Your task to perform on an android device: turn on the 24-hour format for clock Image 0: 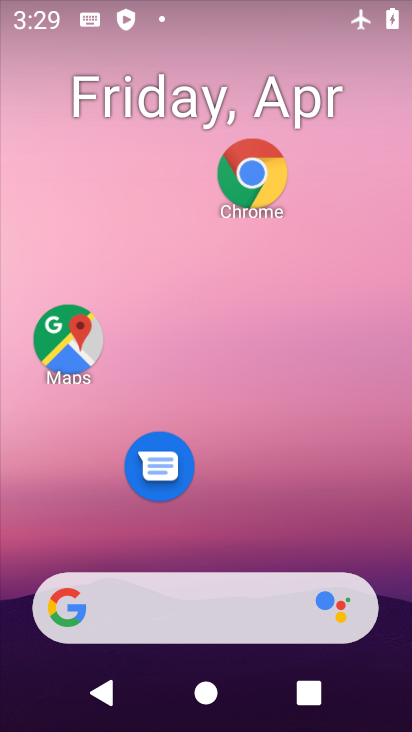
Step 0: drag from (210, 527) to (154, 151)
Your task to perform on an android device: turn on the 24-hour format for clock Image 1: 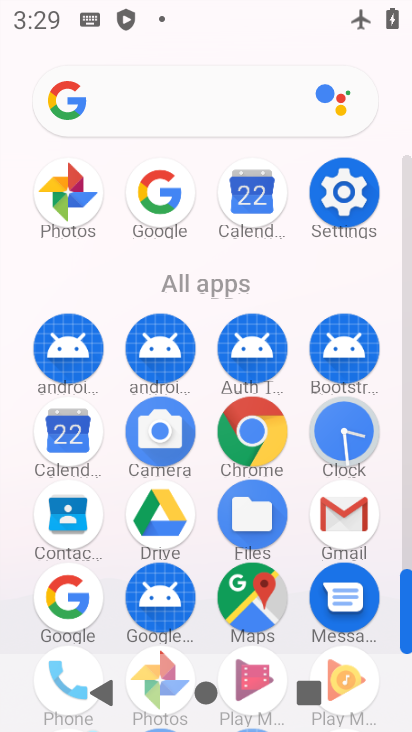
Step 1: click (347, 212)
Your task to perform on an android device: turn on the 24-hour format for clock Image 2: 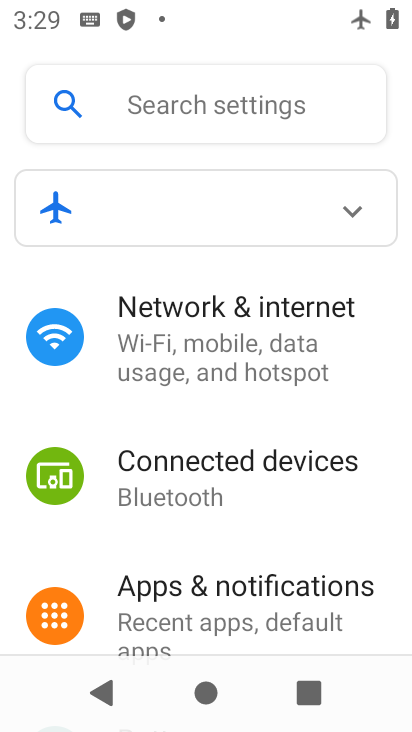
Step 2: drag from (179, 536) to (182, 256)
Your task to perform on an android device: turn on the 24-hour format for clock Image 3: 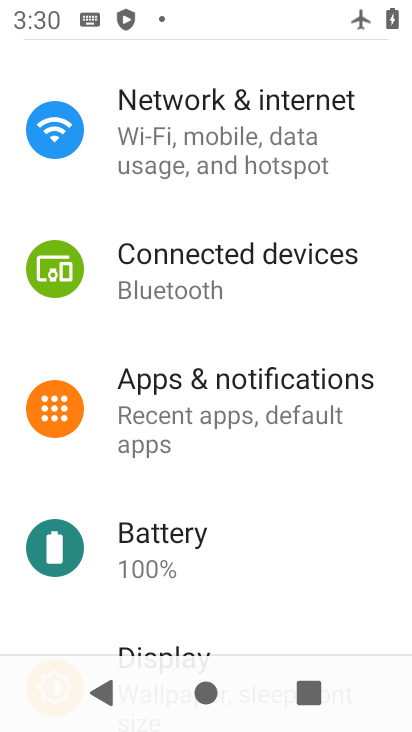
Step 3: press home button
Your task to perform on an android device: turn on the 24-hour format for clock Image 4: 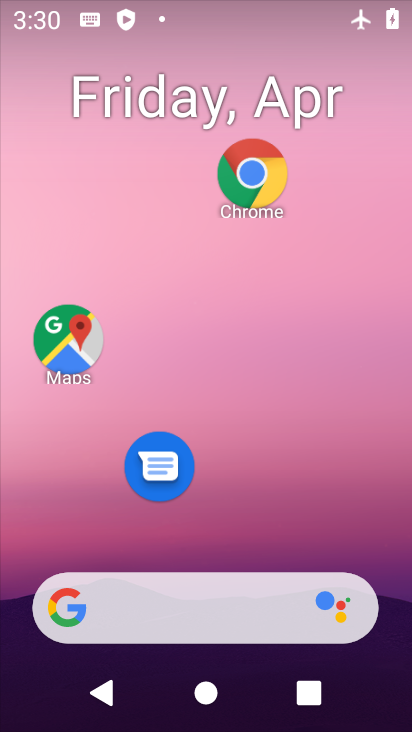
Step 4: drag from (239, 517) to (192, 111)
Your task to perform on an android device: turn on the 24-hour format for clock Image 5: 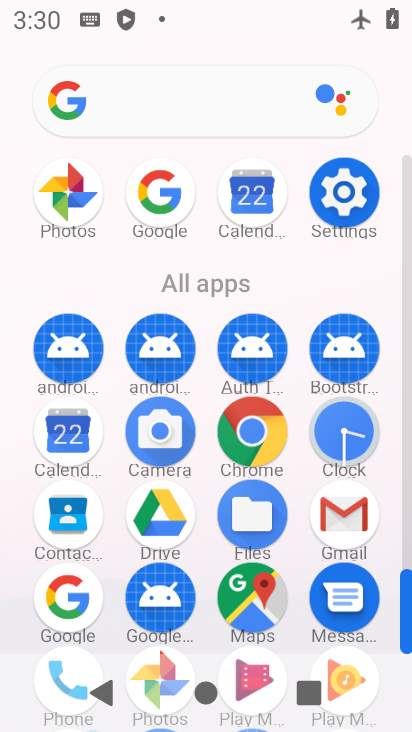
Step 5: click (354, 423)
Your task to perform on an android device: turn on the 24-hour format for clock Image 6: 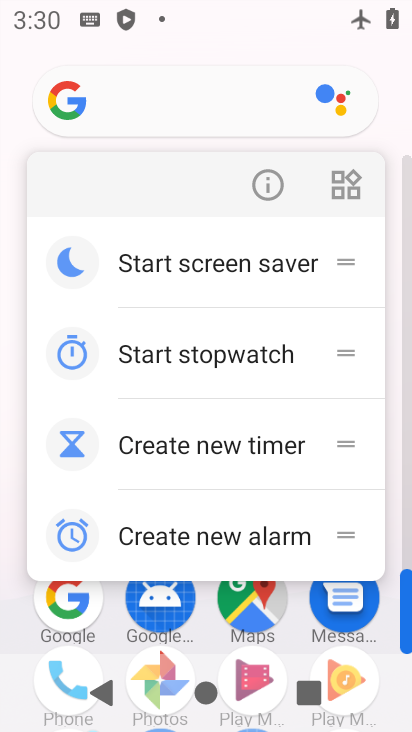
Step 6: click (279, 186)
Your task to perform on an android device: turn on the 24-hour format for clock Image 7: 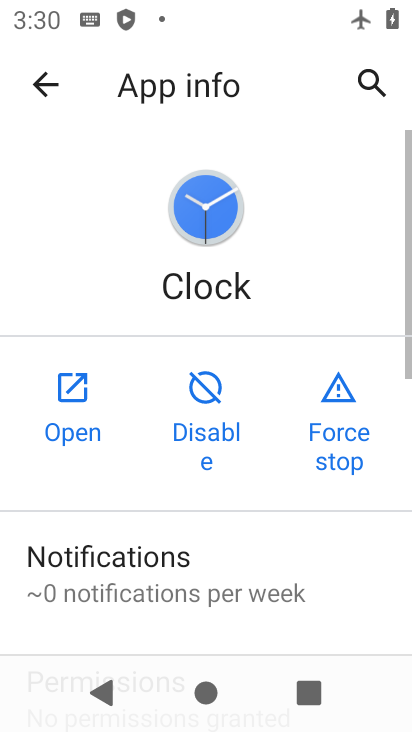
Step 7: click (86, 415)
Your task to perform on an android device: turn on the 24-hour format for clock Image 8: 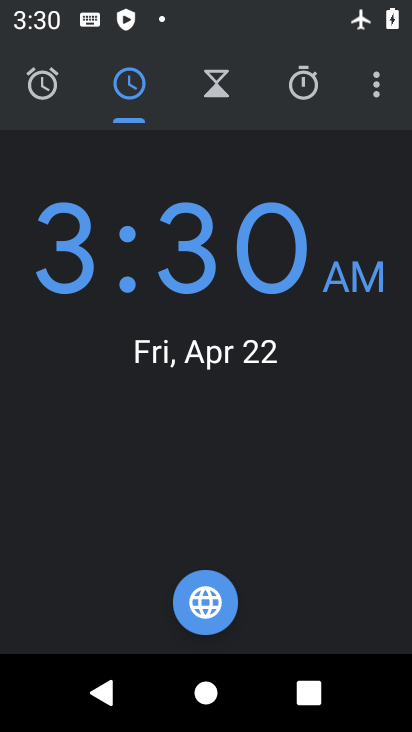
Step 8: click (382, 95)
Your task to perform on an android device: turn on the 24-hour format for clock Image 9: 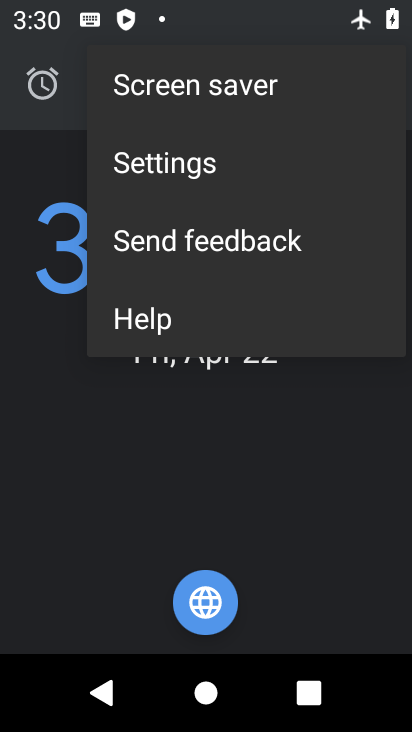
Step 9: click (223, 171)
Your task to perform on an android device: turn on the 24-hour format for clock Image 10: 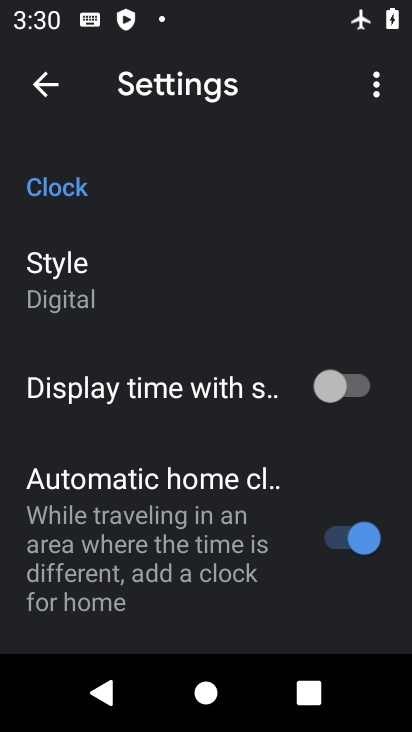
Step 10: drag from (226, 503) to (202, 190)
Your task to perform on an android device: turn on the 24-hour format for clock Image 11: 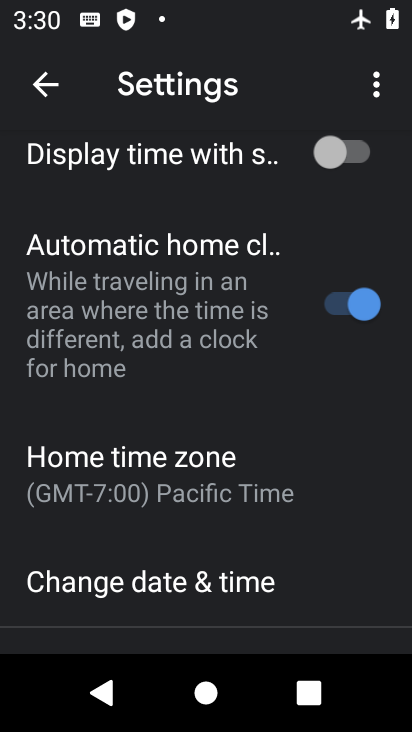
Step 11: click (205, 579)
Your task to perform on an android device: turn on the 24-hour format for clock Image 12: 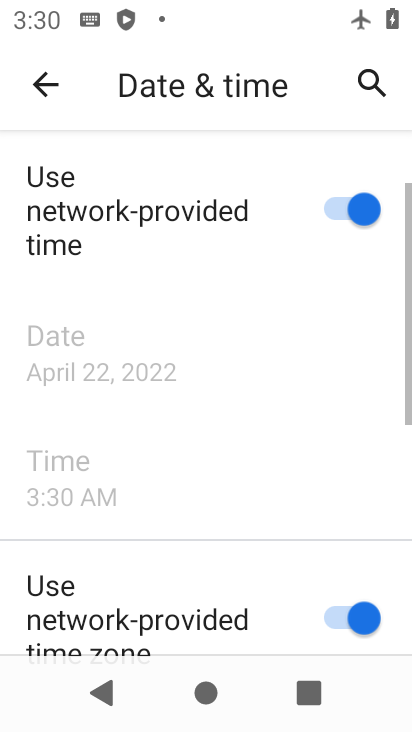
Step 12: drag from (265, 560) to (269, 221)
Your task to perform on an android device: turn on the 24-hour format for clock Image 13: 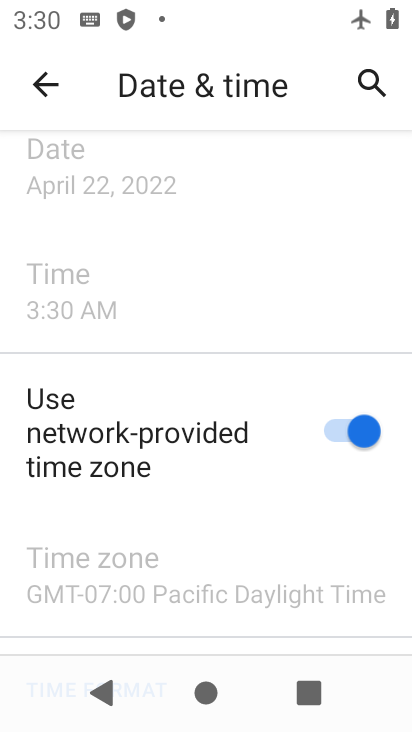
Step 13: drag from (292, 520) to (263, 194)
Your task to perform on an android device: turn on the 24-hour format for clock Image 14: 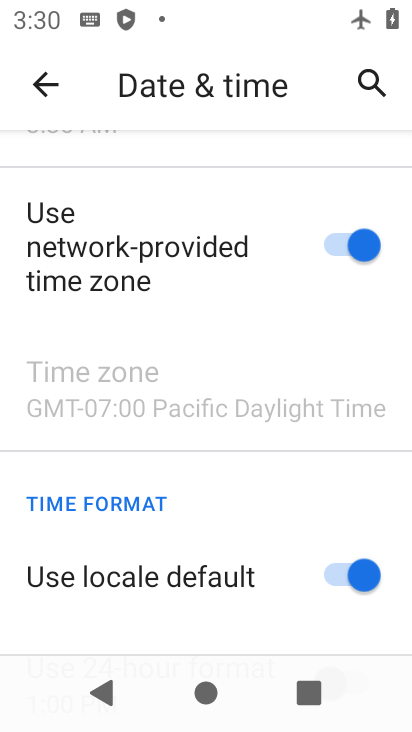
Step 14: drag from (291, 554) to (222, 192)
Your task to perform on an android device: turn on the 24-hour format for clock Image 15: 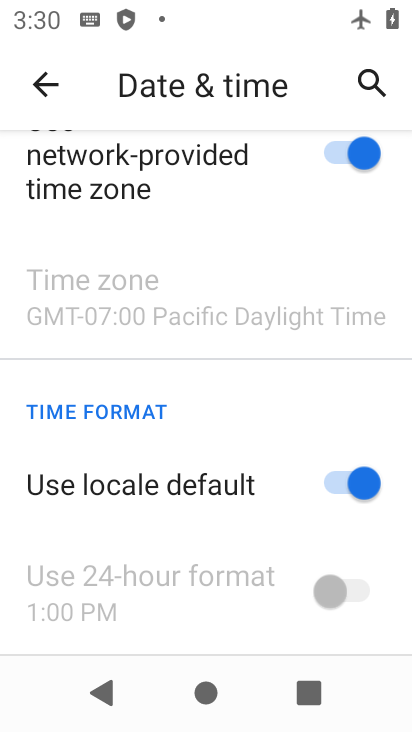
Step 15: click (348, 487)
Your task to perform on an android device: turn on the 24-hour format for clock Image 16: 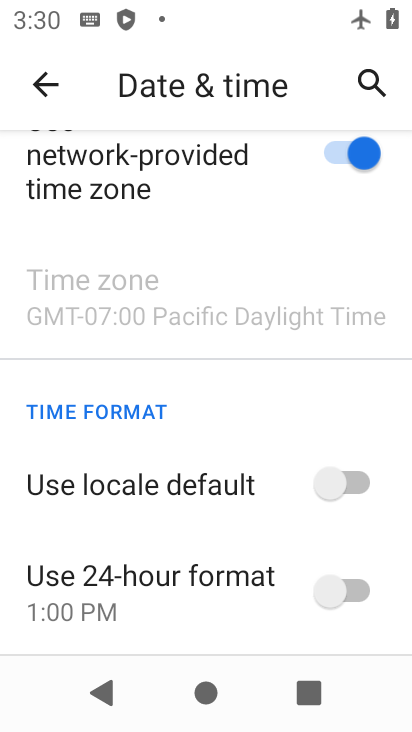
Step 16: click (326, 616)
Your task to perform on an android device: turn on the 24-hour format for clock Image 17: 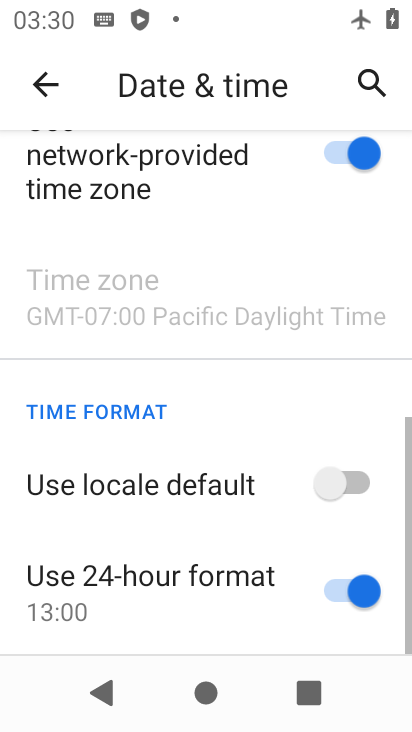
Step 17: task complete